Your task to perform on an android device: Search for Italian restaurants on Maps Image 0: 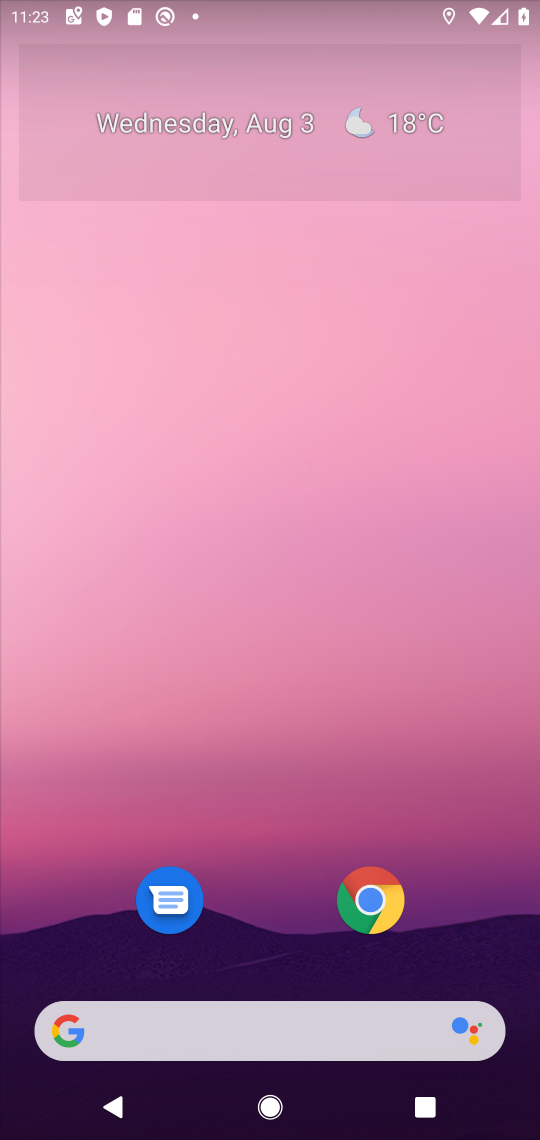
Step 0: press home button
Your task to perform on an android device: Search for Italian restaurants on Maps Image 1: 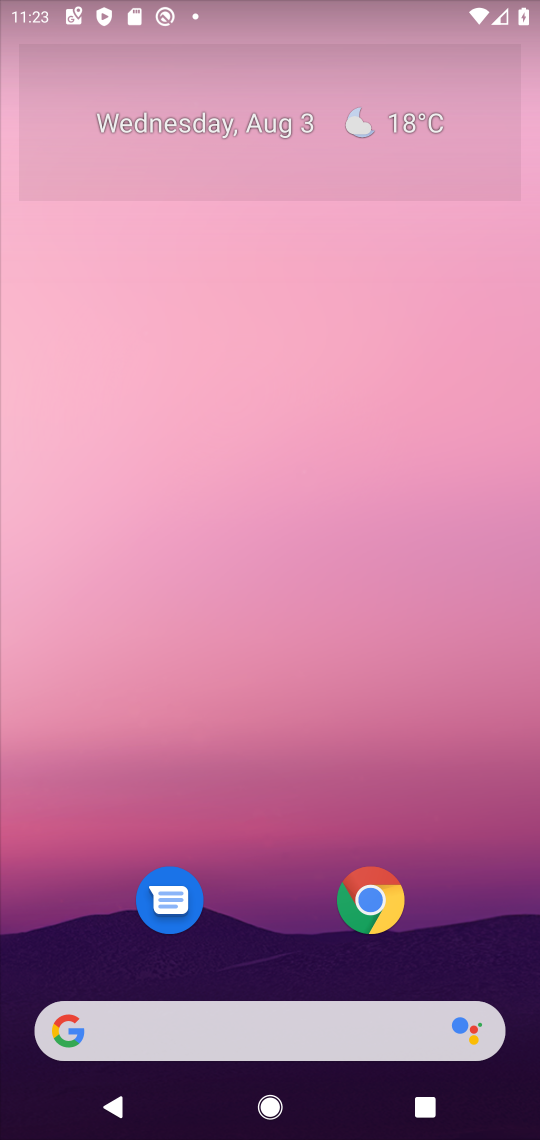
Step 1: drag from (275, 920) to (419, 13)
Your task to perform on an android device: Search for Italian restaurants on Maps Image 2: 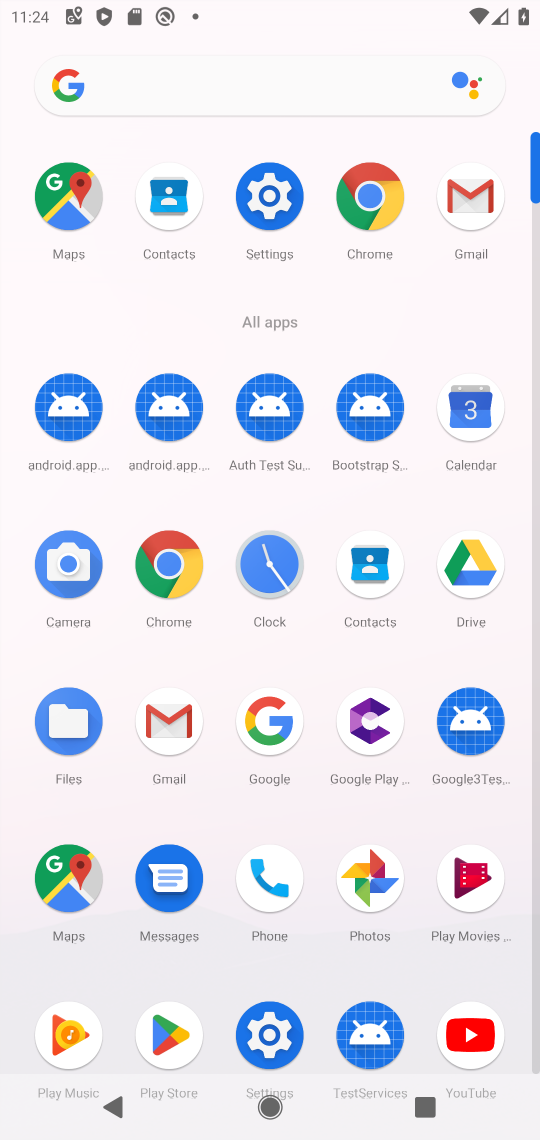
Step 2: click (54, 859)
Your task to perform on an android device: Search for Italian restaurants on Maps Image 3: 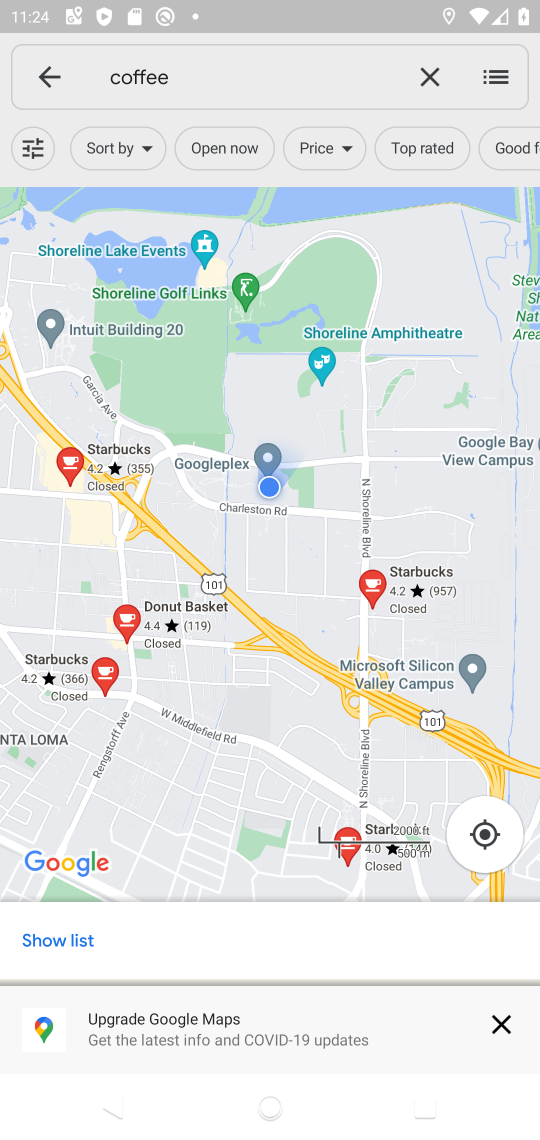
Step 3: click (446, 72)
Your task to perform on an android device: Search for Italian restaurants on Maps Image 4: 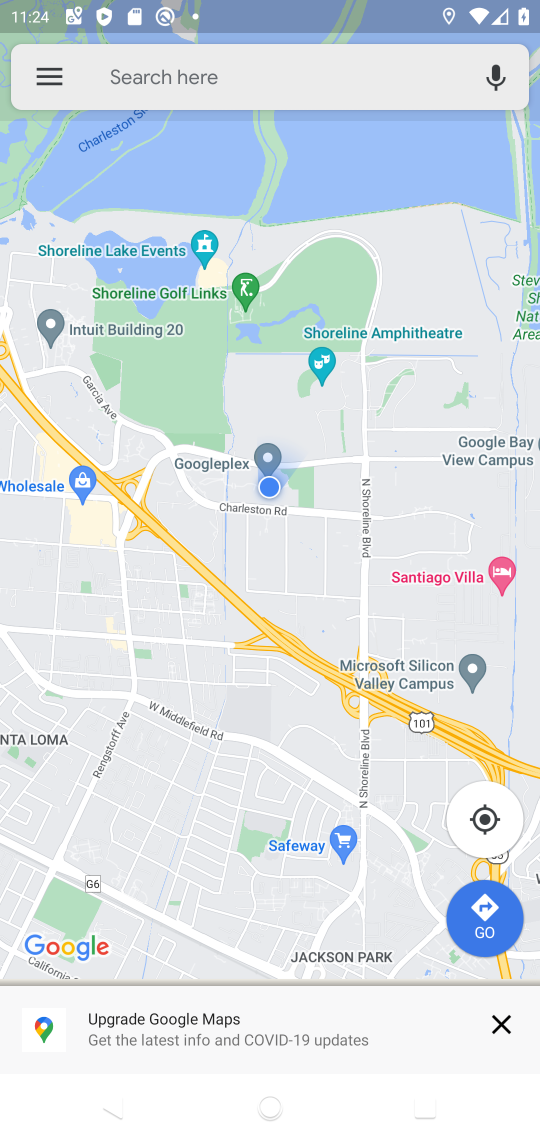
Step 4: type "Italian restaurants"
Your task to perform on an android device: Search for Italian restaurants on Maps Image 5: 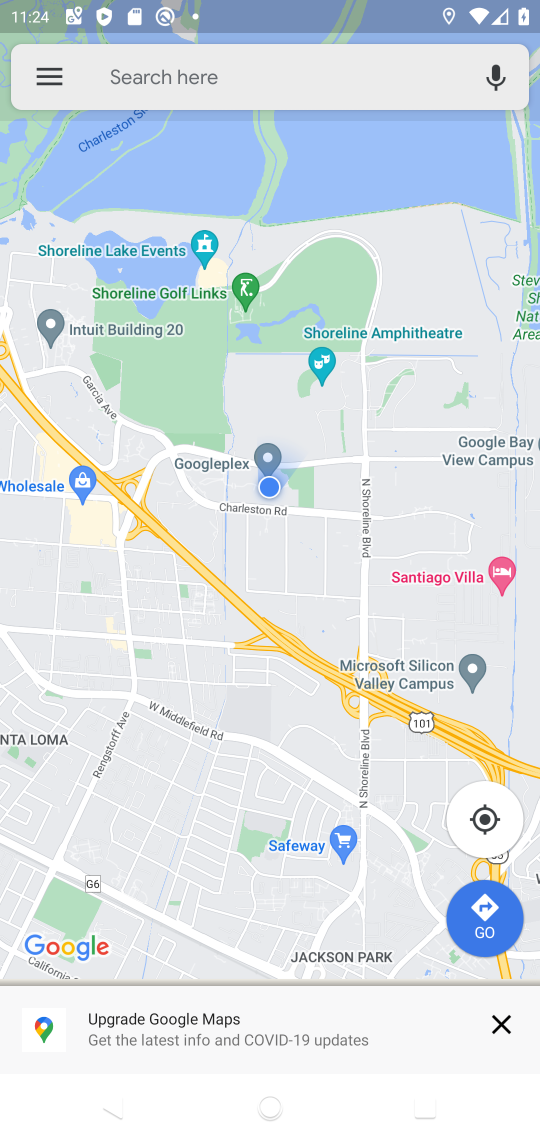
Step 5: click (273, 83)
Your task to perform on an android device: Search for Italian restaurants on Maps Image 6: 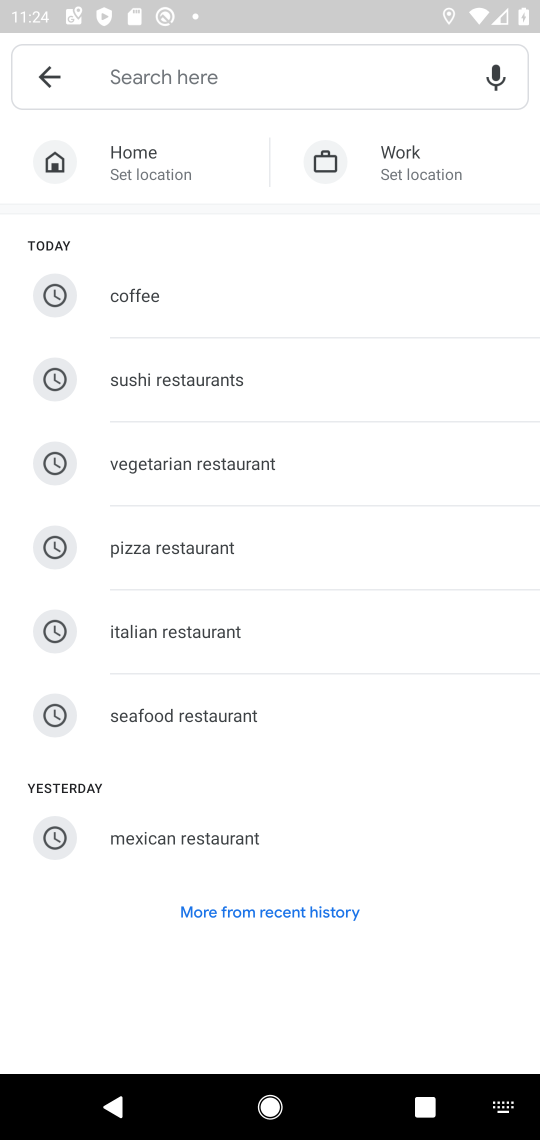
Step 6: click (155, 72)
Your task to perform on an android device: Search for Italian restaurants on Maps Image 7: 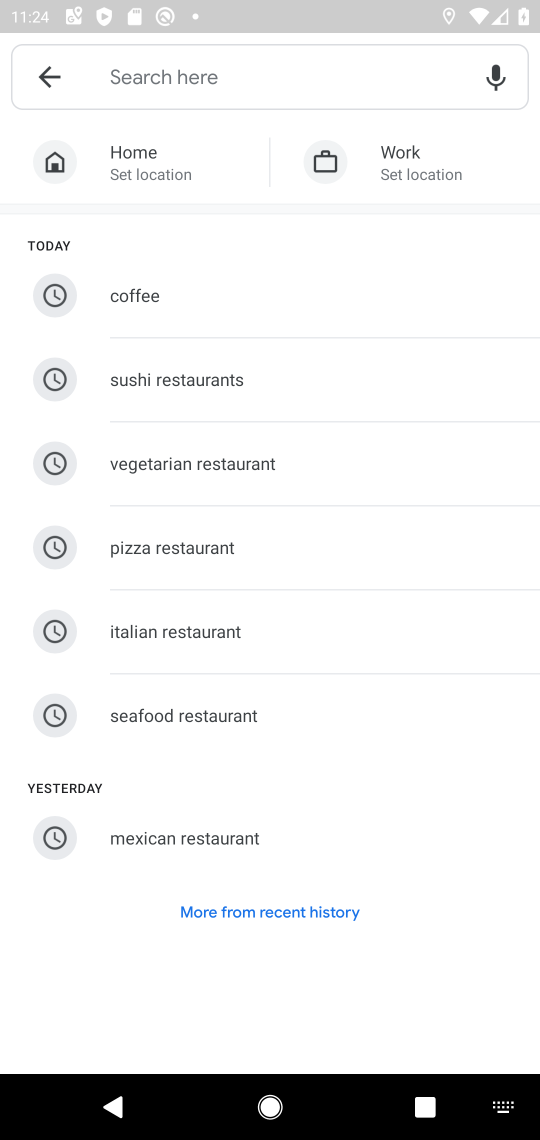
Step 7: click (187, 73)
Your task to perform on an android device: Search for Italian restaurants on Maps Image 8: 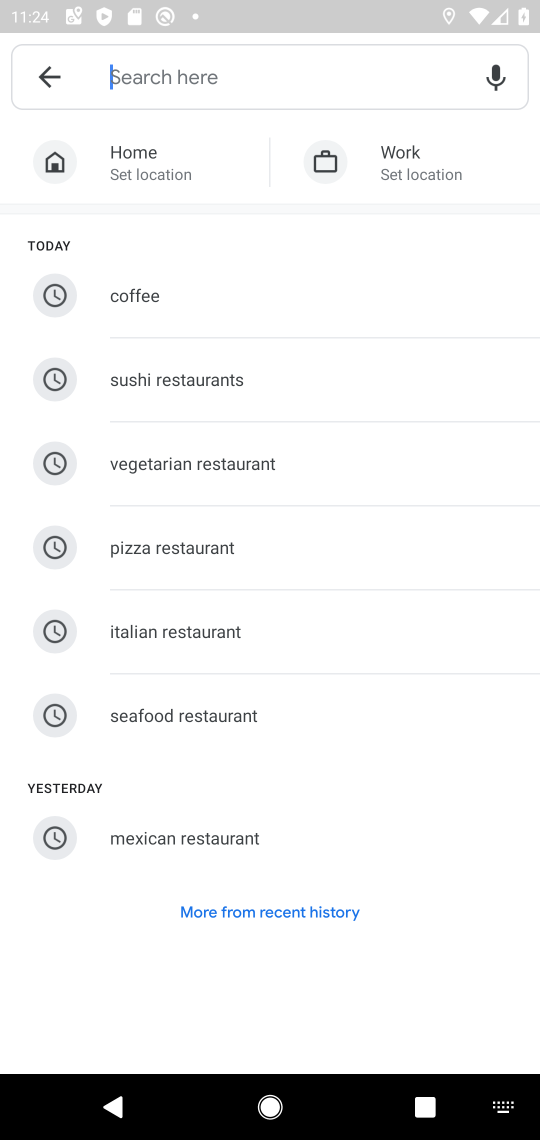
Step 8: click (214, 618)
Your task to perform on an android device: Search for Italian restaurants on Maps Image 9: 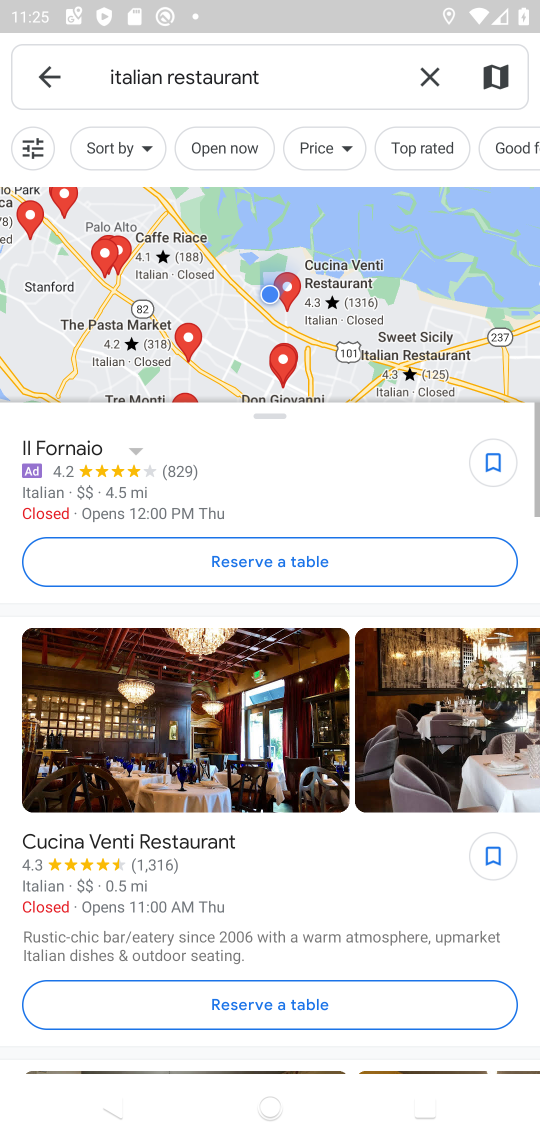
Step 9: task complete